Your task to perform on an android device: change timer sound Image 0: 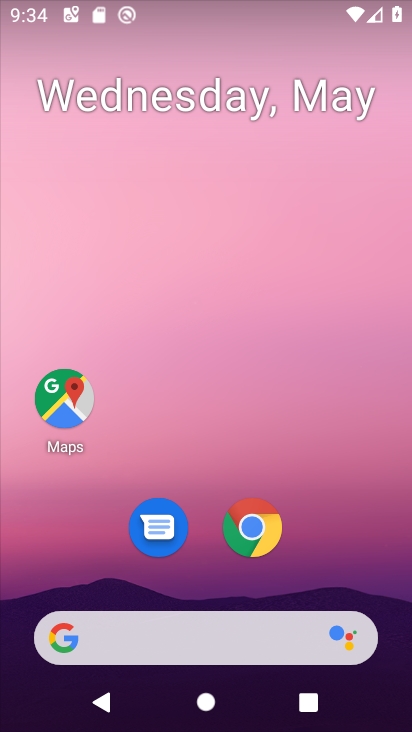
Step 0: drag from (223, 563) to (272, 71)
Your task to perform on an android device: change timer sound Image 1: 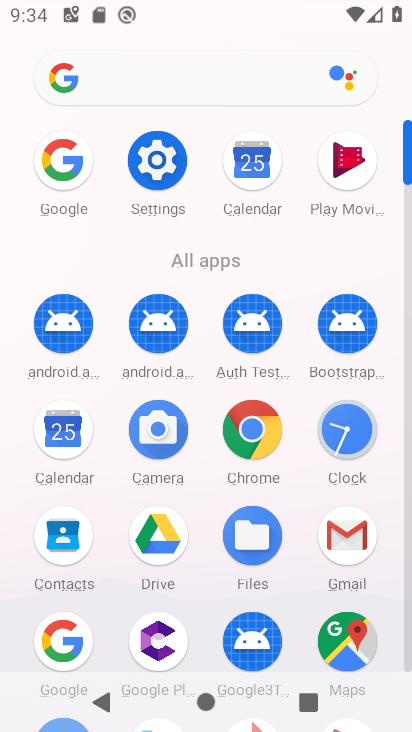
Step 1: click (355, 427)
Your task to perform on an android device: change timer sound Image 2: 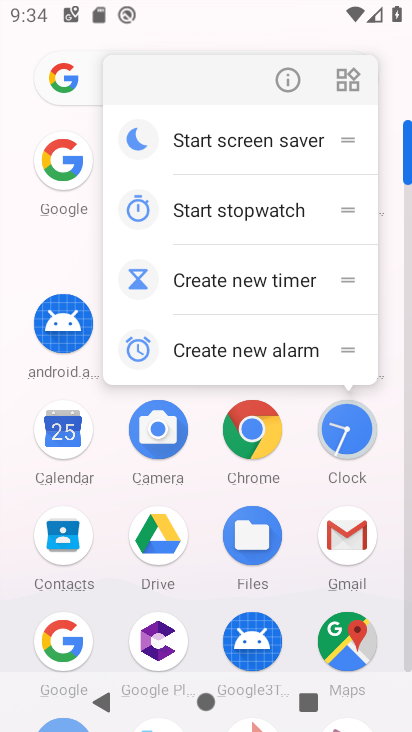
Step 2: click (355, 426)
Your task to perform on an android device: change timer sound Image 3: 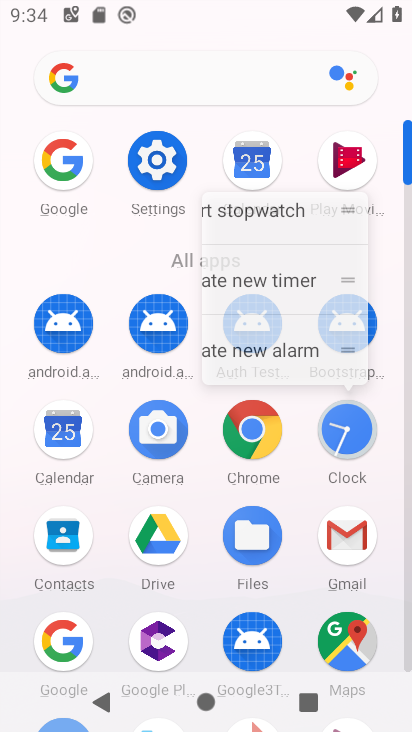
Step 3: click (355, 426)
Your task to perform on an android device: change timer sound Image 4: 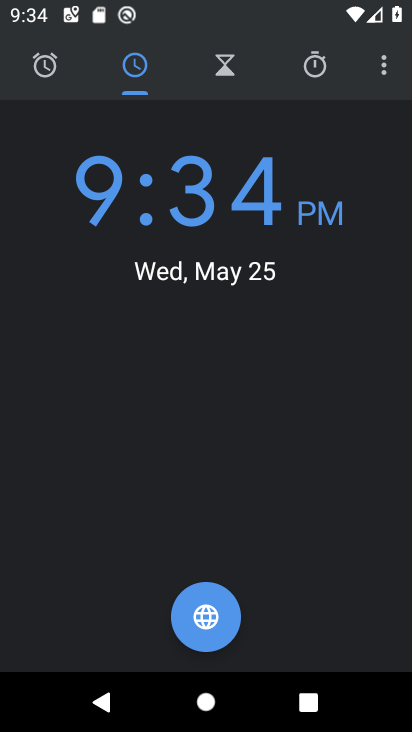
Step 4: click (386, 69)
Your task to perform on an android device: change timer sound Image 5: 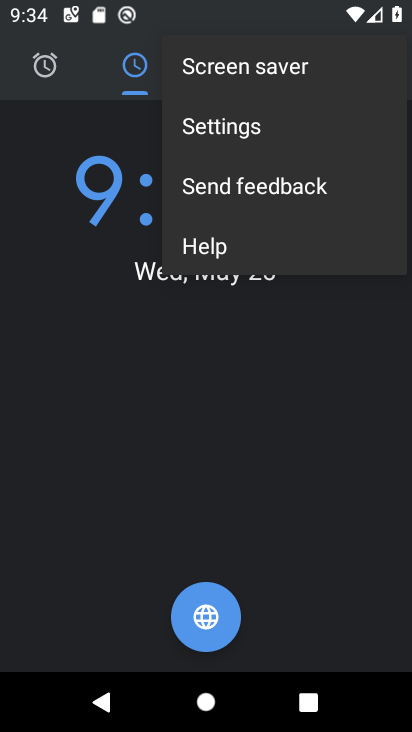
Step 5: click (226, 141)
Your task to perform on an android device: change timer sound Image 6: 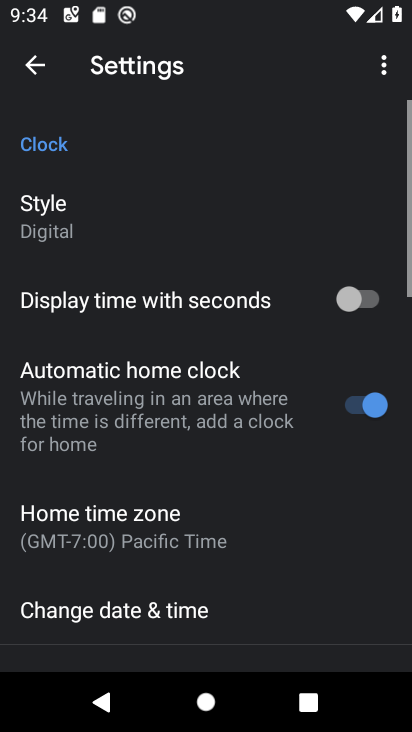
Step 6: drag from (220, 533) to (242, 98)
Your task to perform on an android device: change timer sound Image 7: 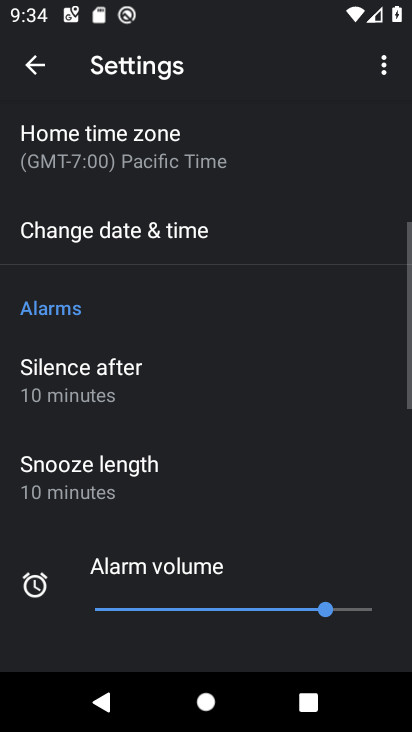
Step 7: drag from (209, 580) to (214, 245)
Your task to perform on an android device: change timer sound Image 8: 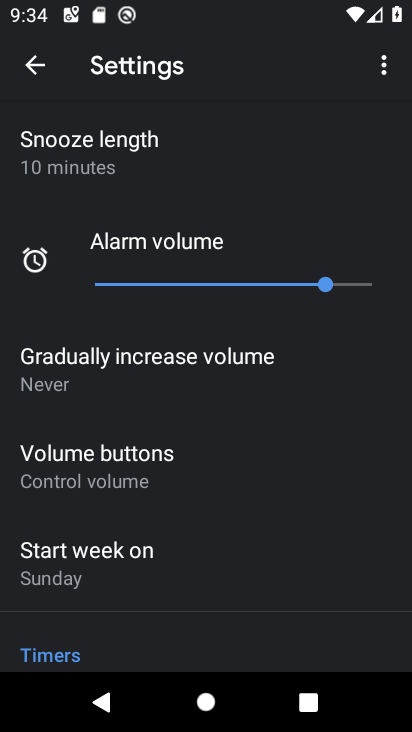
Step 8: drag from (163, 578) to (168, 249)
Your task to perform on an android device: change timer sound Image 9: 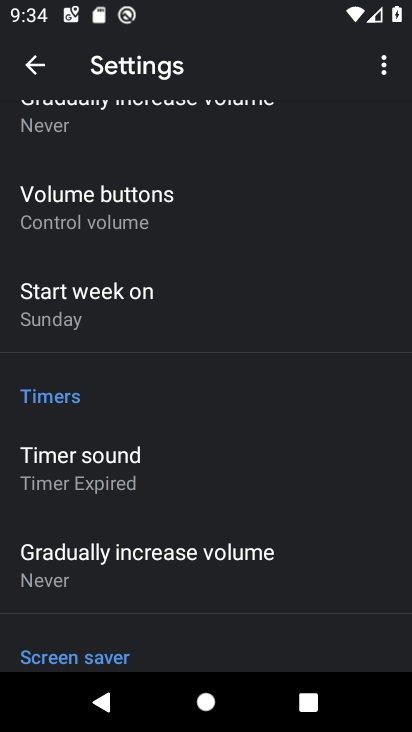
Step 9: click (135, 456)
Your task to perform on an android device: change timer sound Image 10: 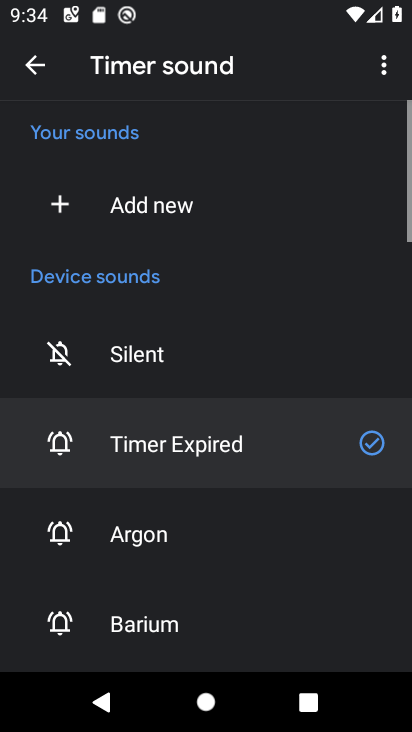
Step 10: click (166, 552)
Your task to perform on an android device: change timer sound Image 11: 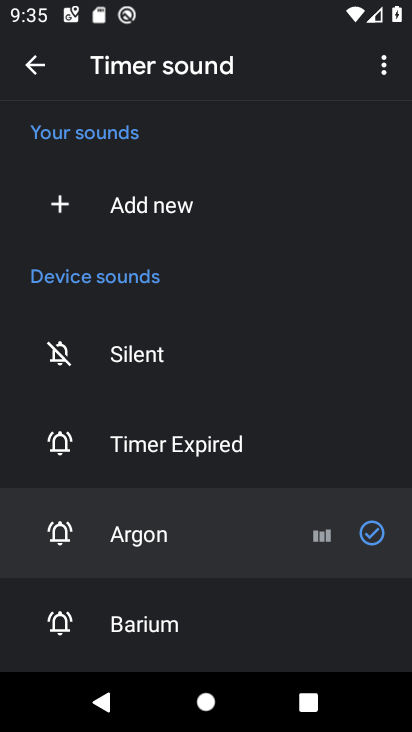
Step 11: task complete